Your task to perform on an android device: Go to wifi settings Image 0: 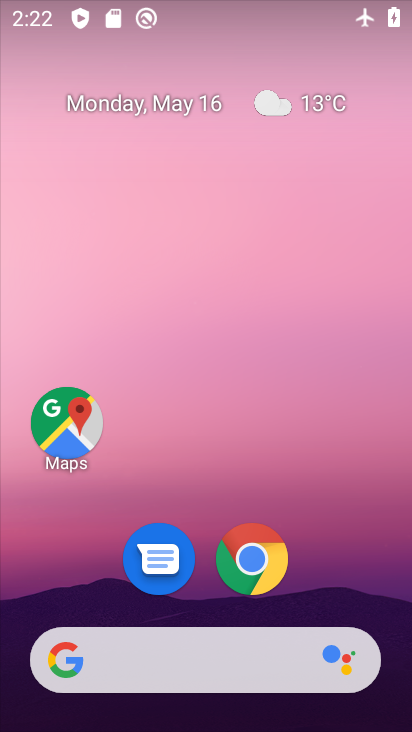
Step 0: drag from (201, 622) to (147, 61)
Your task to perform on an android device: Go to wifi settings Image 1: 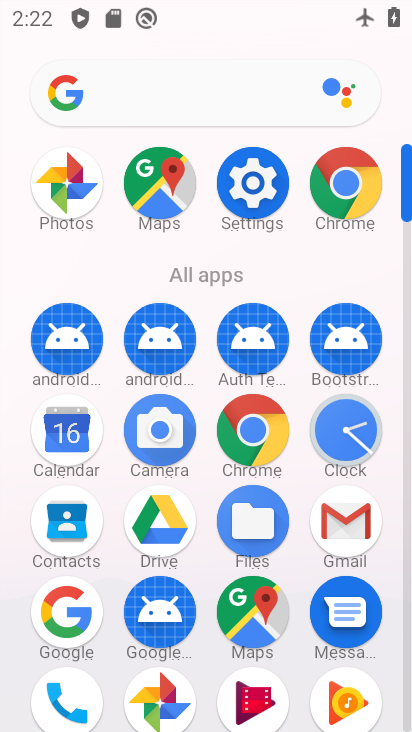
Step 1: click (230, 194)
Your task to perform on an android device: Go to wifi settings Image 2: 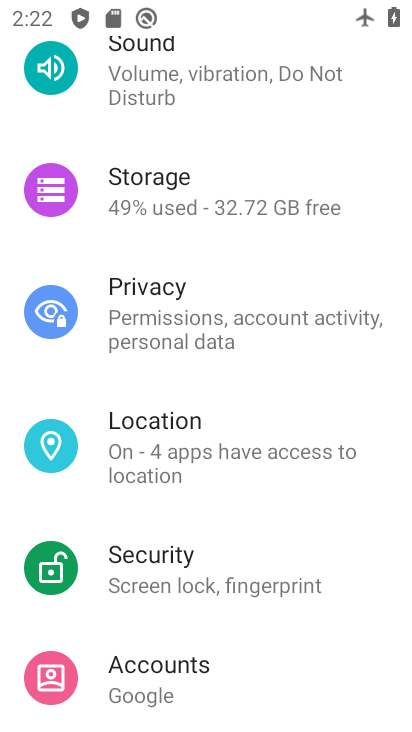
Step 2: drag from (179, 142) to (127, 731)
Your task to perform on an android device: Go to wifi settings Image 3: 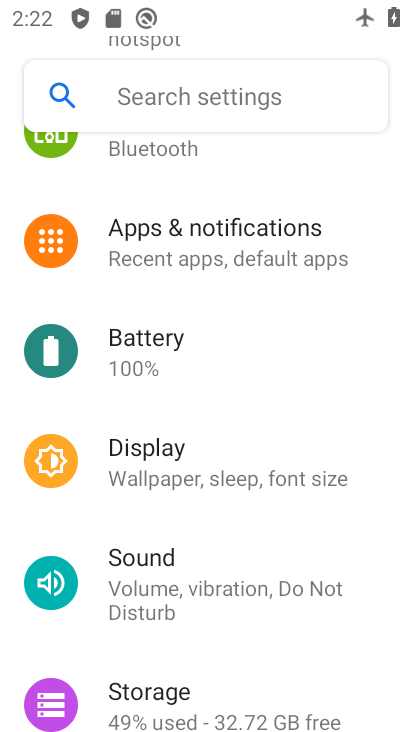
Step 3: drag from (228, 216) to (200, 724)
Your task to perform on an android device: Go to wifi settings Image 4: 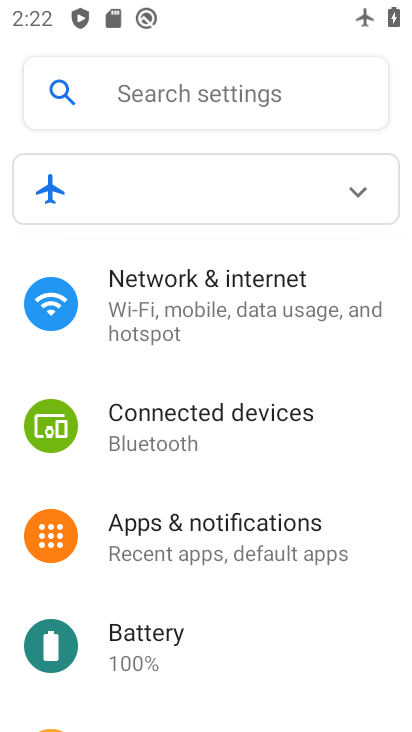
Step 4: click (200, 322)
Your task to perform on an android device: Go to wifi settings Image 5: 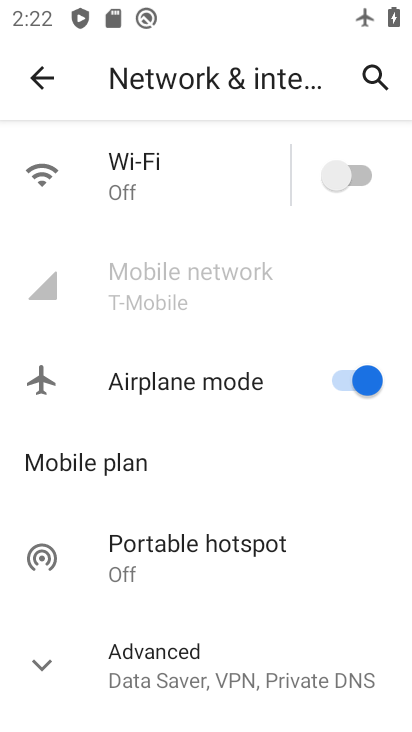
Step 5: click (195, 201)
Your task to perform on an android device: Go to wifi settings Image 6: 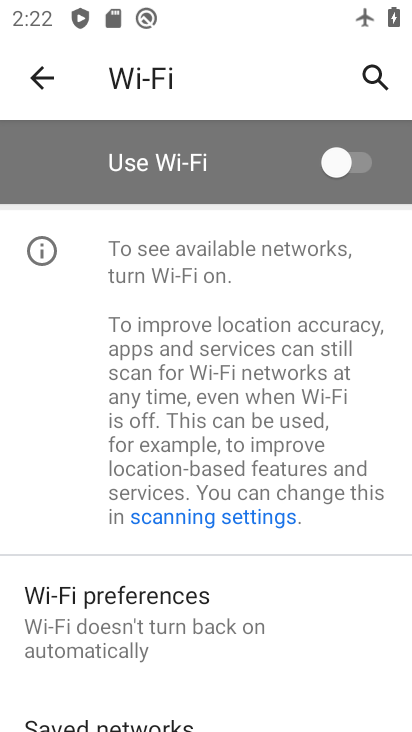
Step 6: task complete